Your task to perform on an android device: Search for the Nintendo Switch. Image 0: 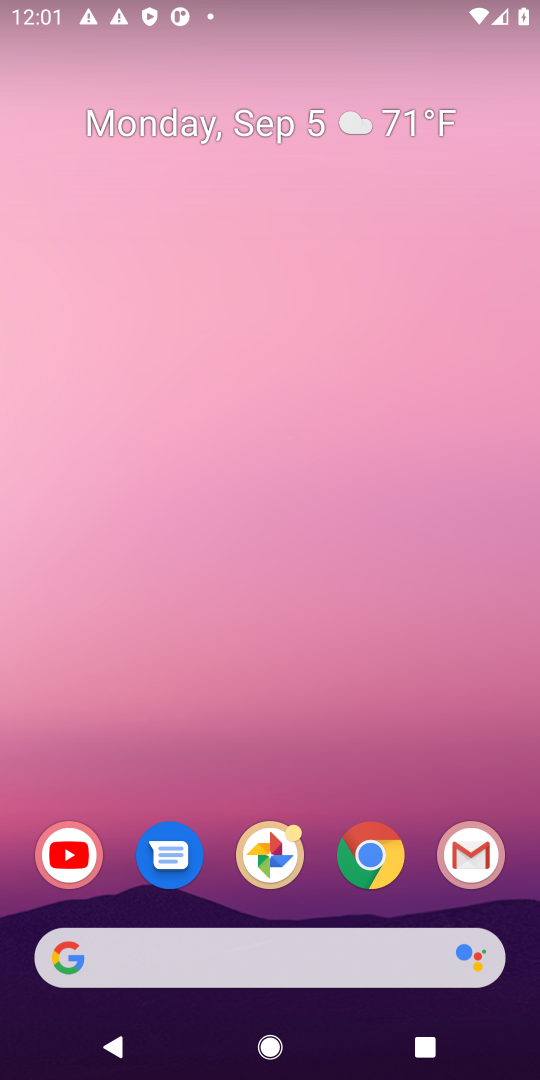
Step 0: press home button
Your task to perform on an android device: Search for the Nintendo Switch. Image 1: 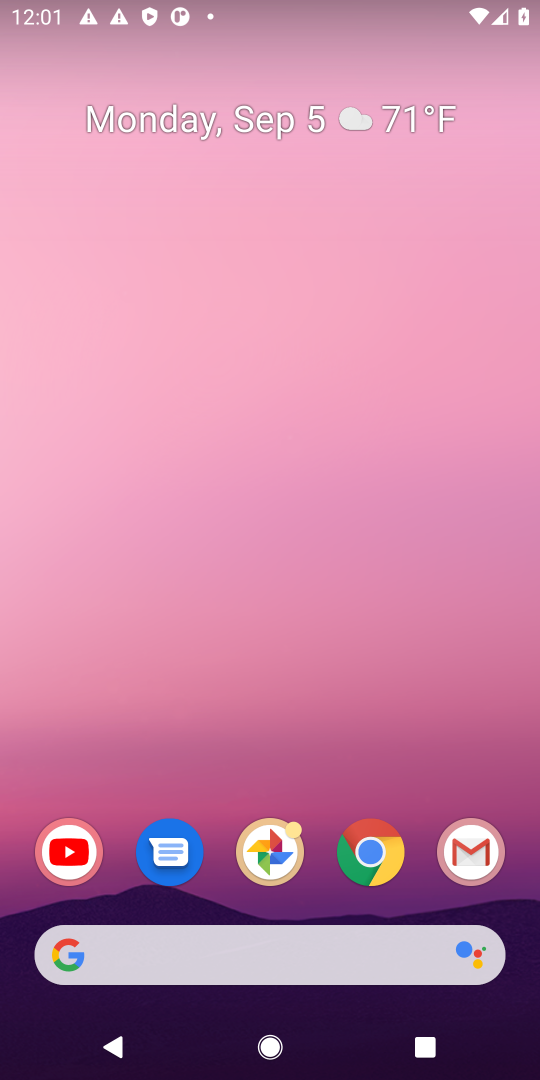
Step 1: click (376, 854)
Your task to perform on an android device: Search for the Nintendo Switch. Image 2: 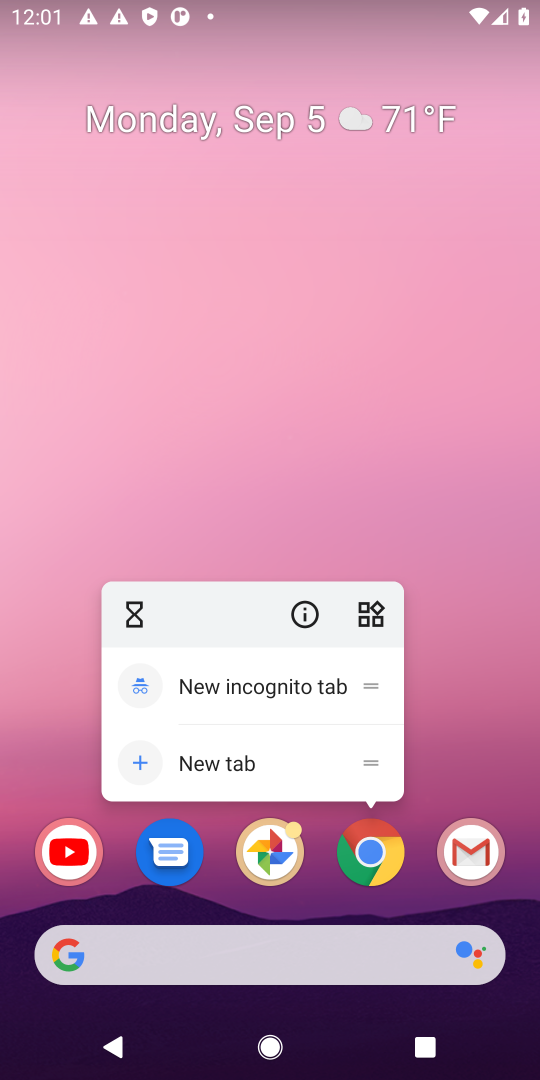
Step 2: click (376, 854)
Your task to perform on an android device: Search for the Nintendo Switch. Image 3: 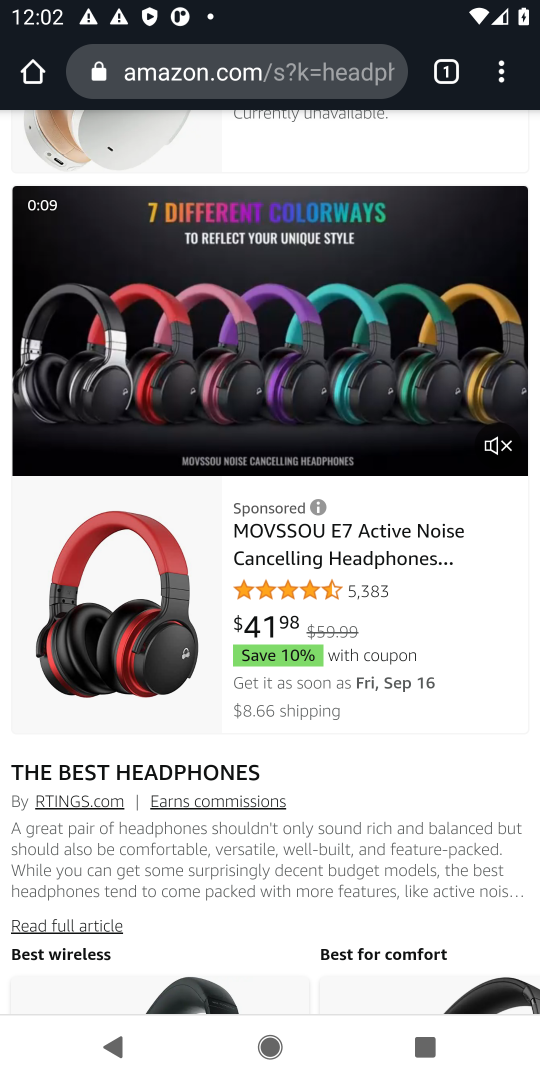
Step 3: click (235, 54)
Your task to perform on an android device: Search for the Nintendo Switch. Image 4: 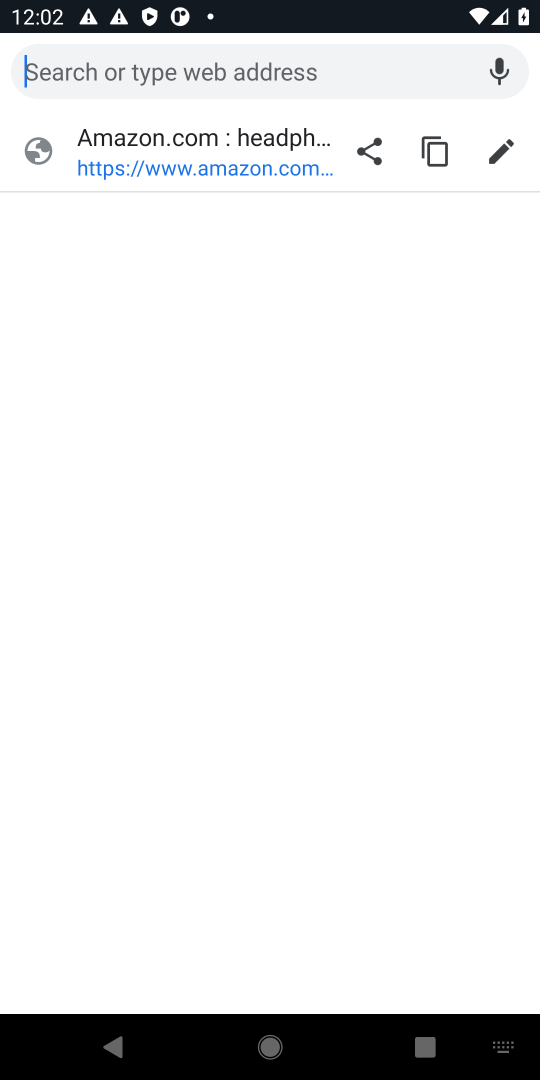
Step 4: type "Nintendo Switch"
Your task to perform on an android device: Search for the Nintendo Switch. Image 5: 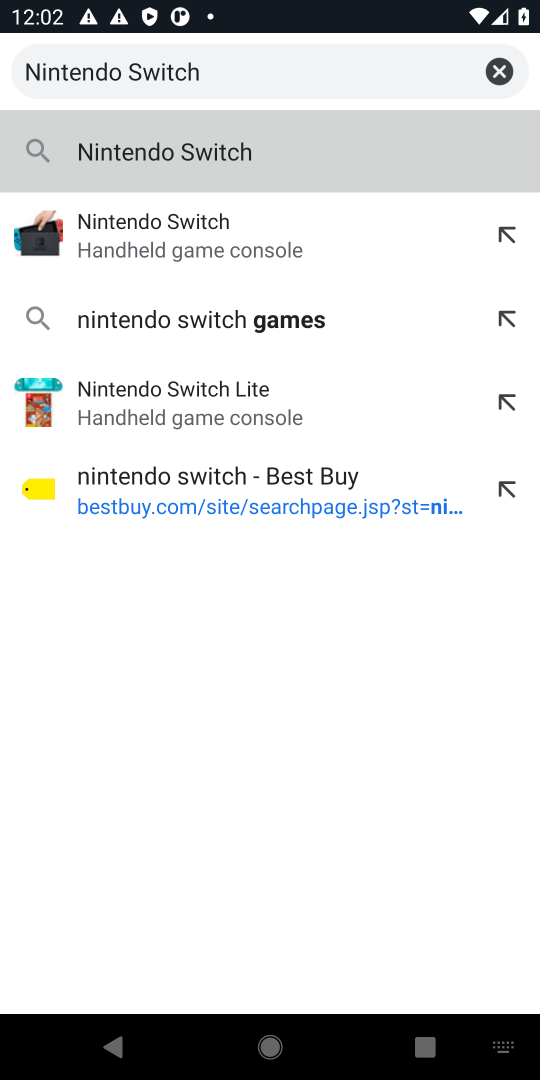
Step 5: click (141, 224)
Your task to perform on an android device: Search for the Nintendo Switch. Image 6: 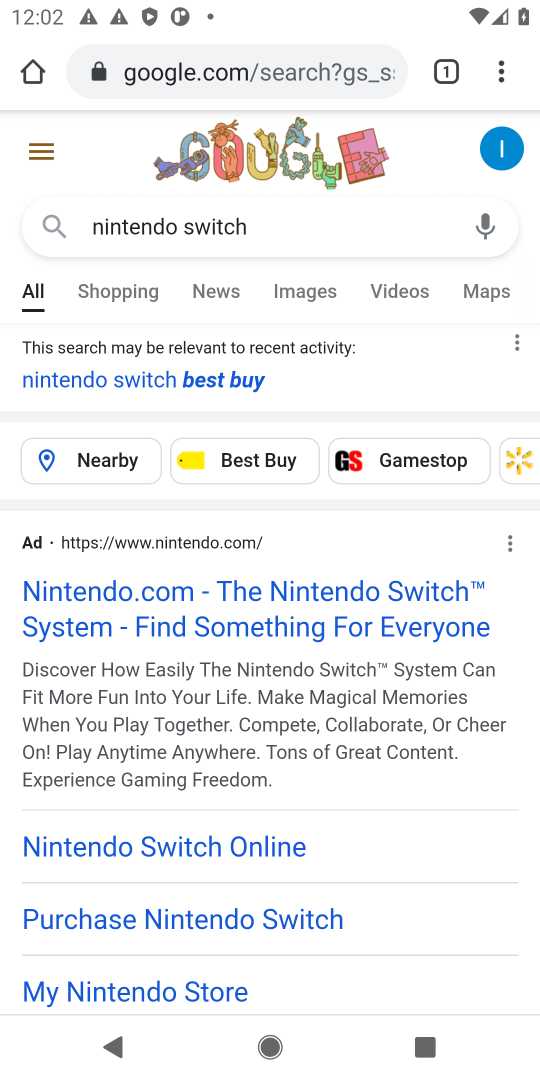
Step 6: click (157, 596)
Your task to perform on an android device: Search for the Nintendo Switch. Image 7: 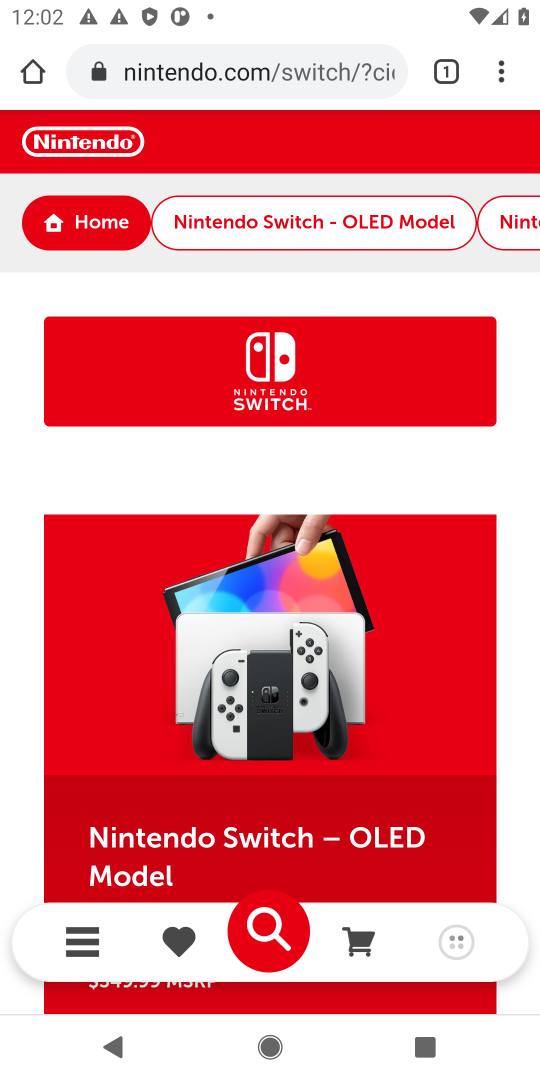
Step 7: task complete